Your task to perform on an android device: Clear the shopping cart on newegg. Search for "macbook pro" on newegg, select the first entry, and add it to the cart. Image 0: 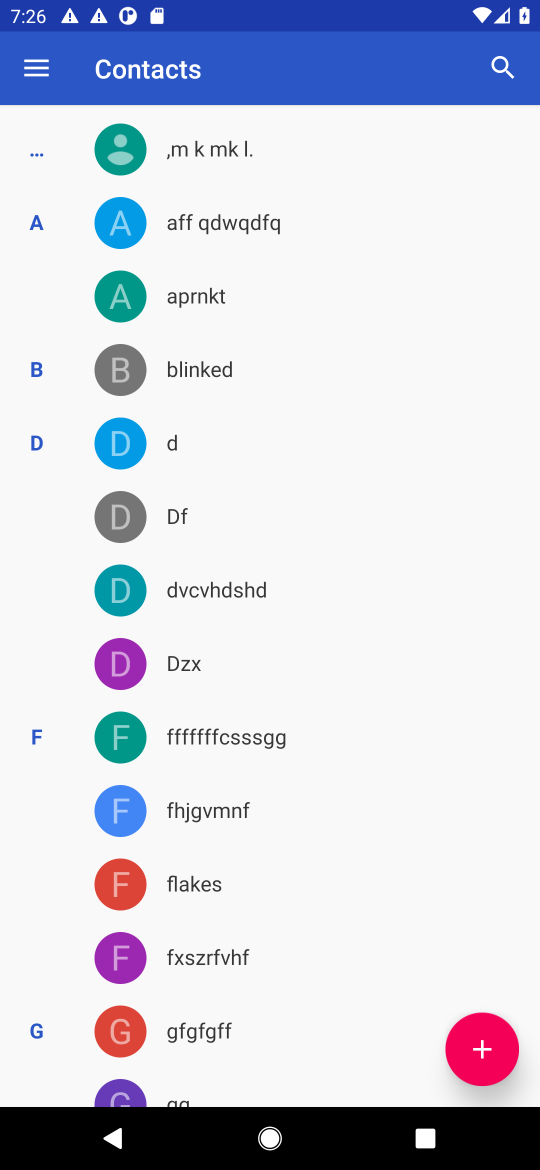
Step 0: press home button
Your task to perform on an android device: Clear the shopping cart on newegg. Search for "macbook pro" on newegg, select the first entry, and add it to the cart. Image 1: 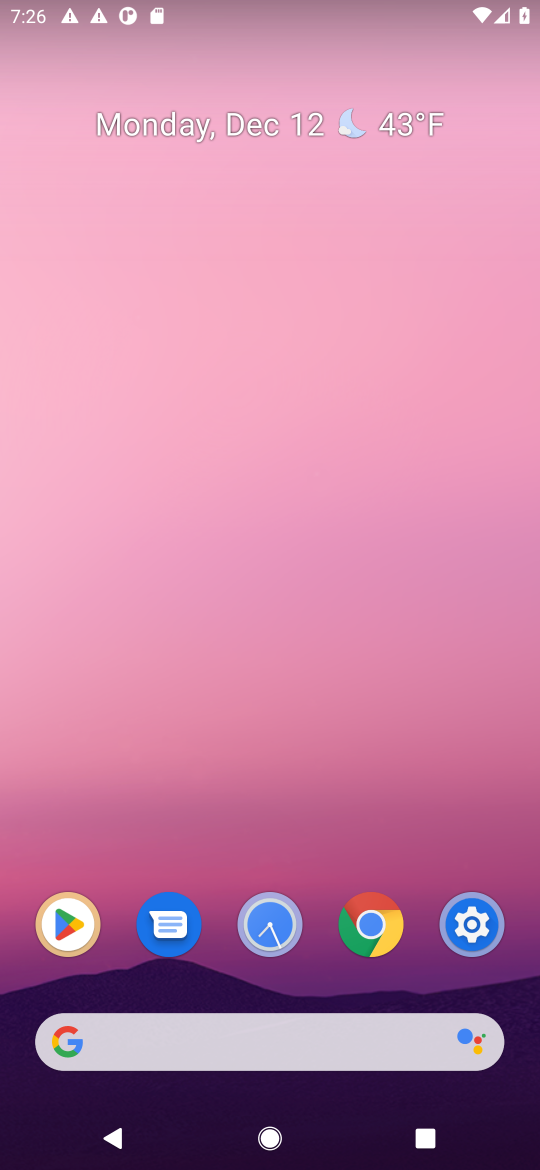
Step 1: click (262, 1045)
Your task to perform on an android device: Clear the shopping cart on newegg. Search for "macbook pro" on newegg, select the first entry, and add it to the cart. Image 2: 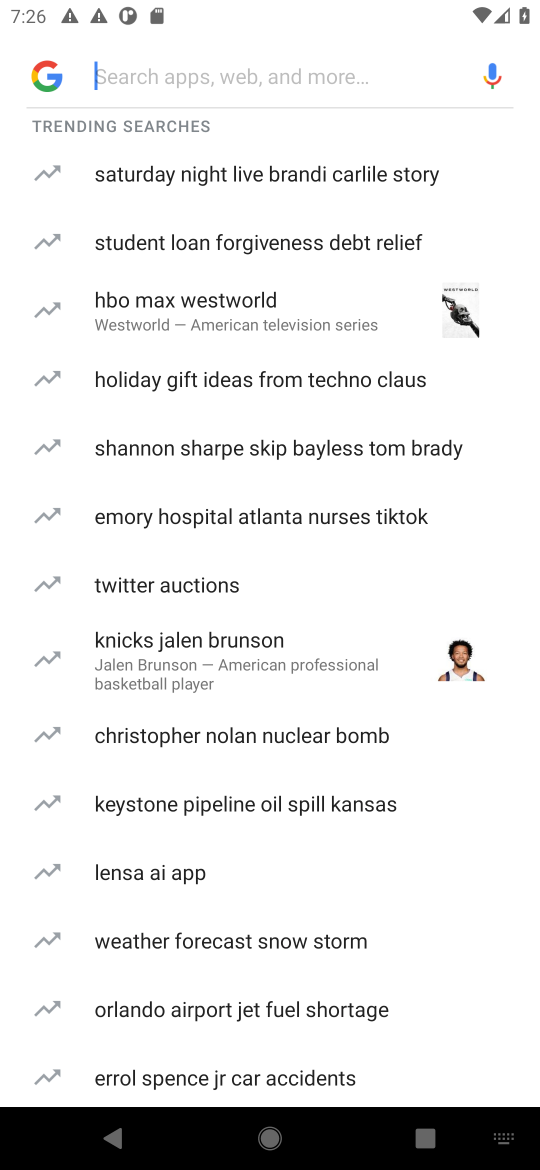
Step 2: type "newegg"
Your task to perform on an android device: Clear the shopping cart on newegg. Search for "macbook pro" on newegg, select the first entry, and add it to the cart. Image 3: 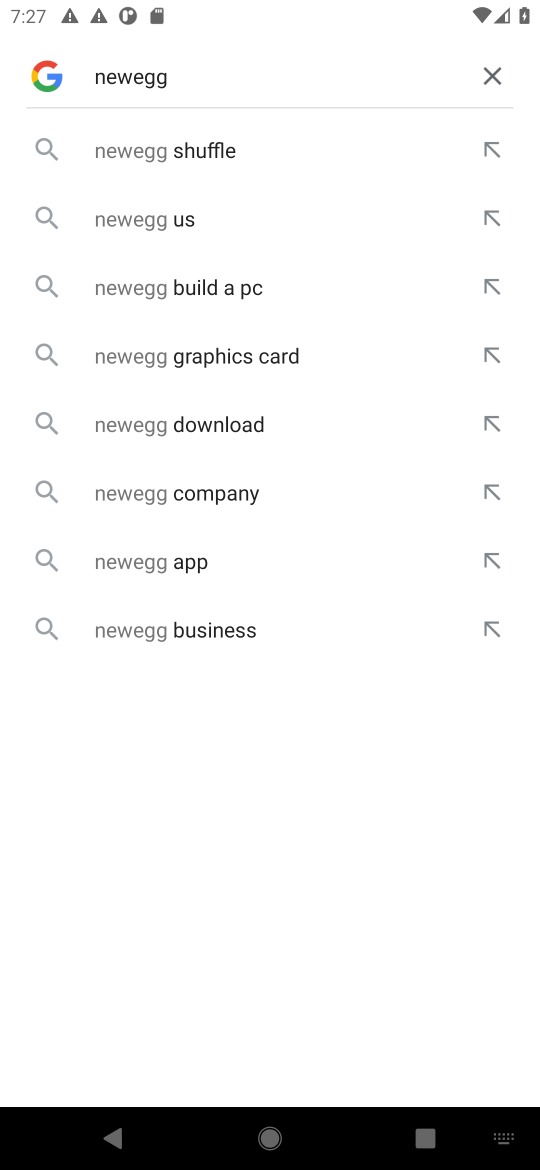
Step 3: click (150, 224)
Your task to perform on an android device: Clear the shopping cart on newegg. Search for "macbook pro" on newegg, select the first entry, and add it to the cart. Image 4: 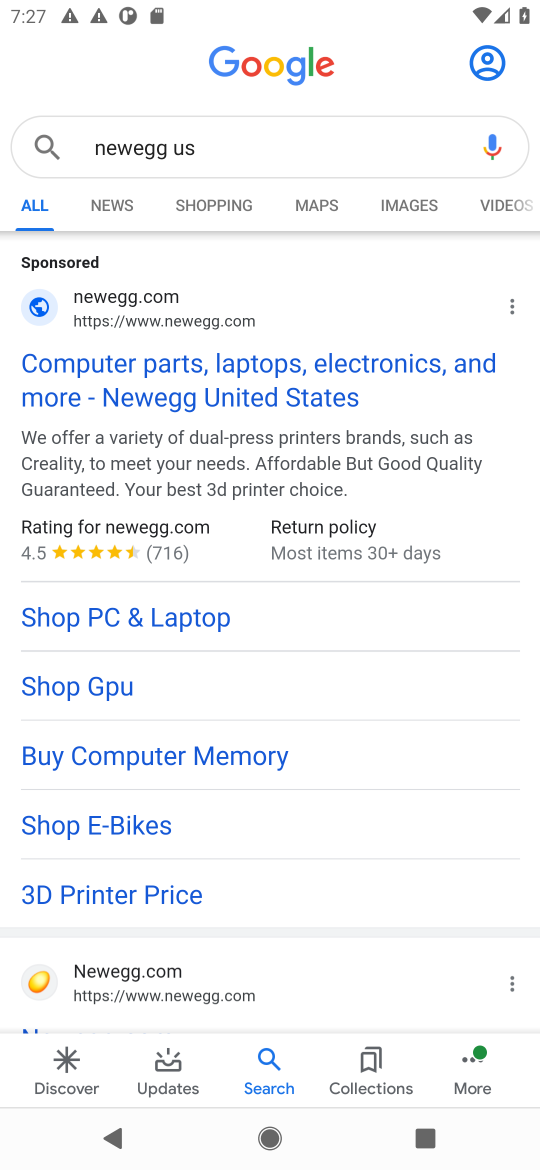
Step 4: click (124, 374)
Your task to perform on an android device: Clear the shopping cart on newegg. Search for "macbook pro" on newegg, select the first entry, and add it to the cart. Image 5: 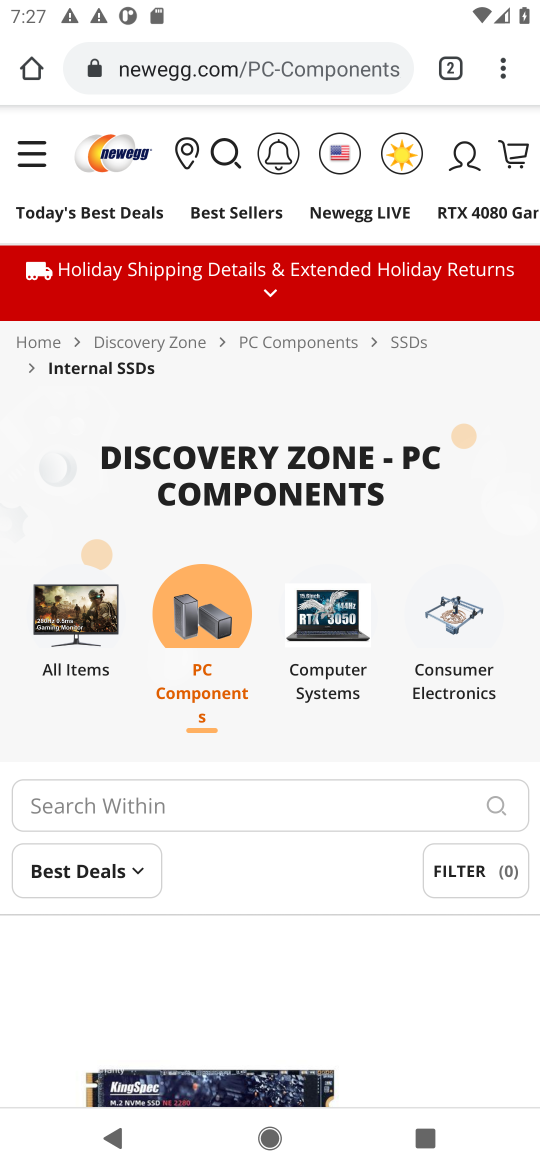
Step 5: click (226, 161)
Your task to perform on an android device: Clear the shopping cart on newegg. Search for "macbook pro" on newegg, select the first entry, and add it to the cart. Image 6: 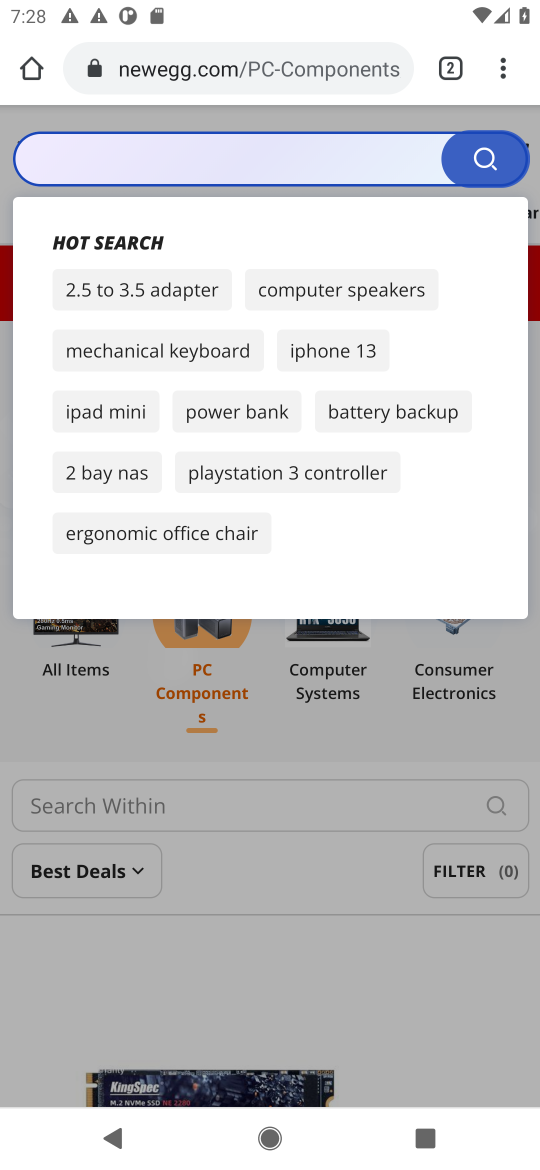
Step 6: click (277, 172)
Your task to perform on an android device: Clear the shopping cart on newegg. Search for "macbook pro" on newegg, select the first entry, and add it to the cart. Image 7: 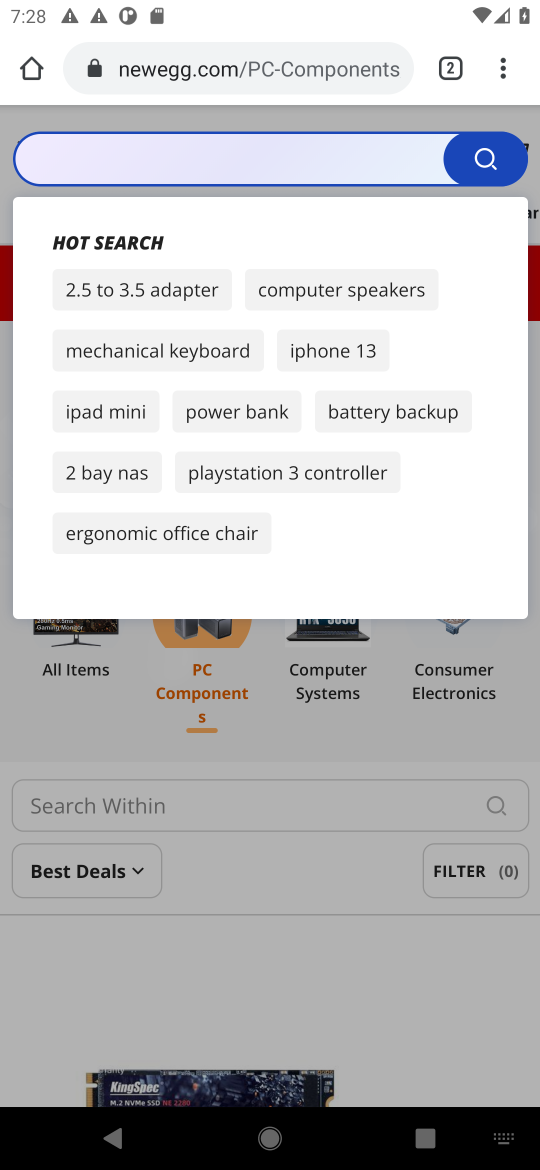
Step 7: type "macbook pro"
Your task to perform on an android device: Clear the shopping cart on newegg. Search for "macbook pro" on newegg, select the first entry, and add it to the cart. Image 8: 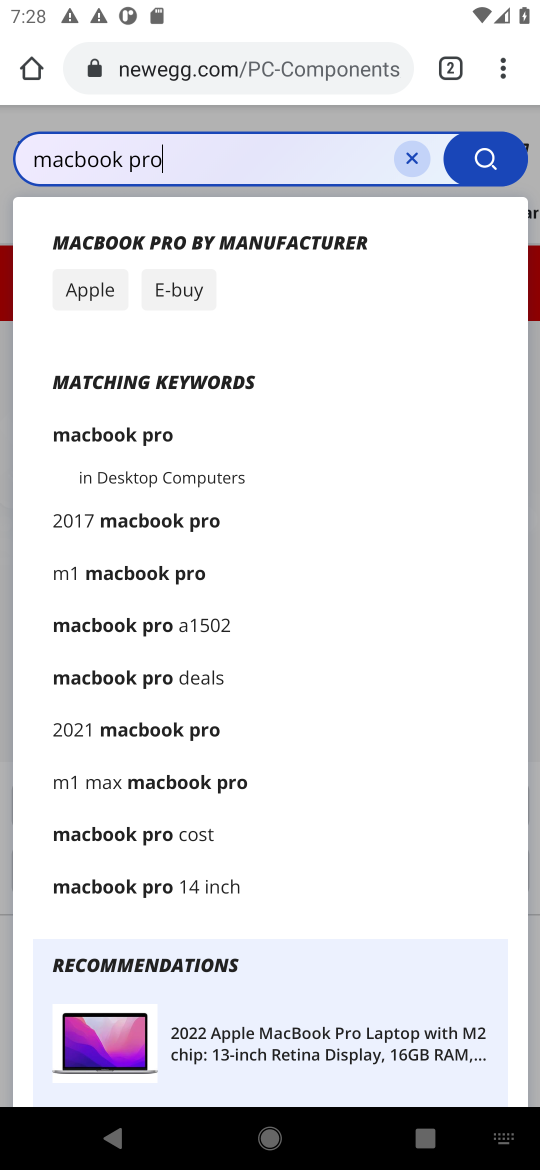
Step 8: click (83, 439)
Your task to perform on an android device: Clear the shopping cart on newegg. Search for "macbook pro" on newegg, select the first entry, and add it to the cart. Image 9: 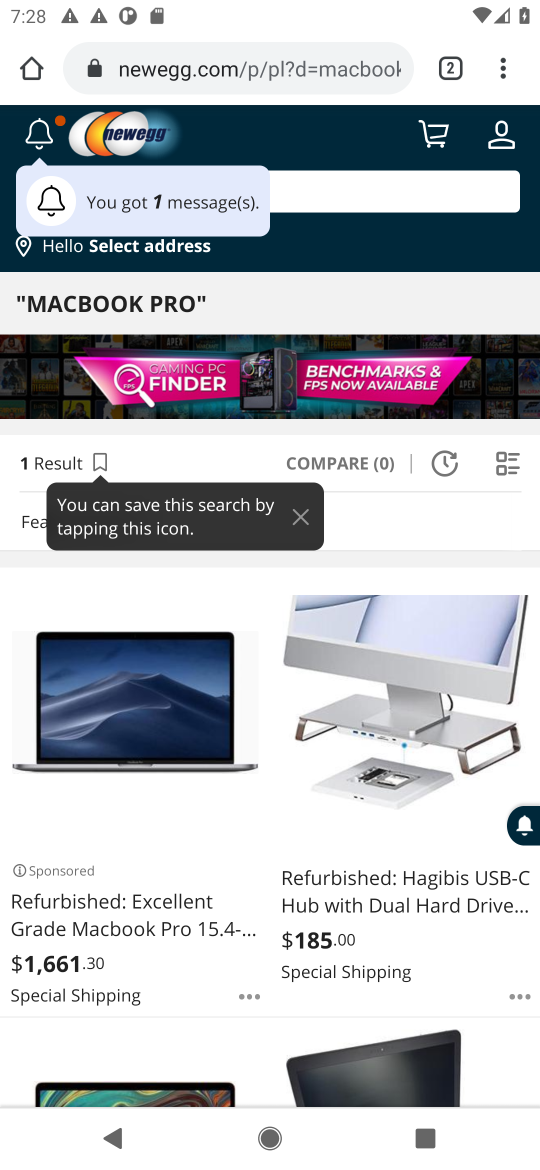
Step 9: click (99, 767)
Your task to perform on an android device: Clear the shopping cart on newegg. Search for "macbook pro" on newegg, select the first entry, and add it to the cart. Image 10: 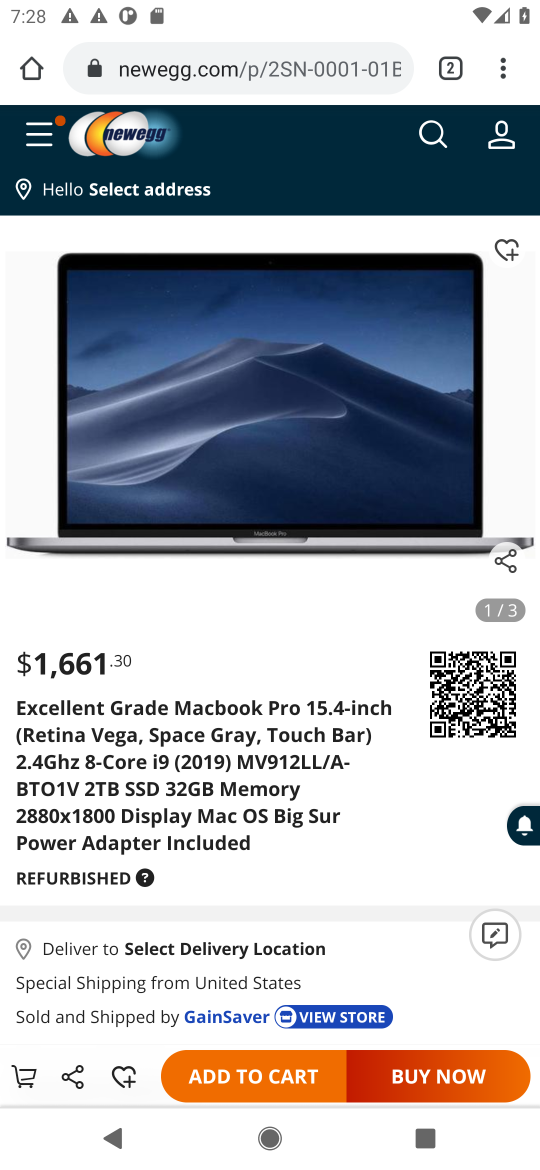
Step 10: click (246, 1074)
Your task to perform on an android device: Clear the shopping cart on newegg. Search for "macbook pro" on newegg, select the first entry, and add it to the cart. Image 11: 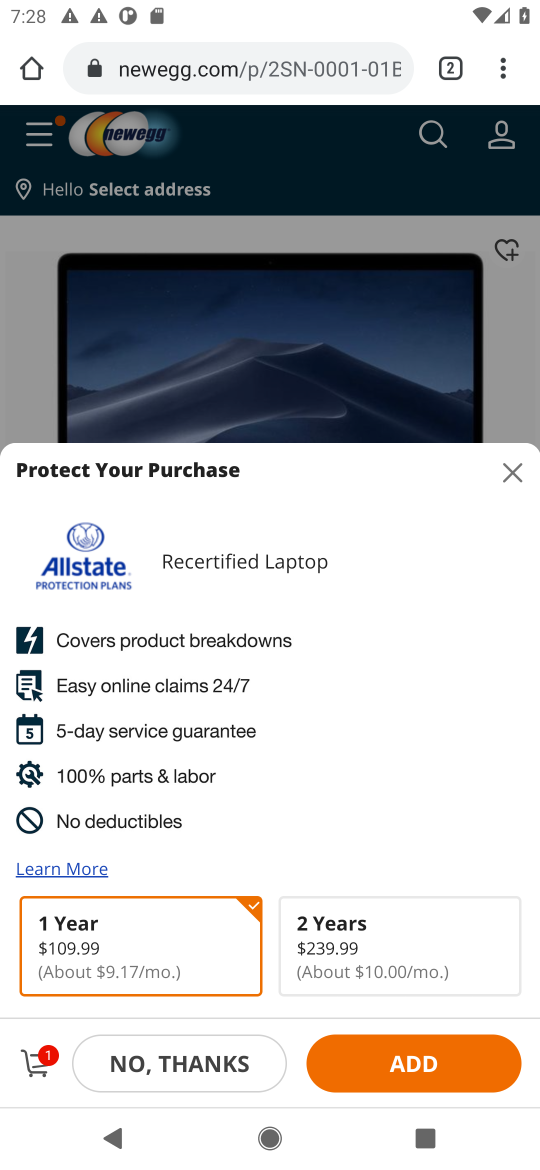
Step 11: click (236, 1063)
Your task to perform on an android device: Clear the shopping cart on newegg. Search for "macbook pro" on newegg, select the first entry, and add it to the cart. Image 12: 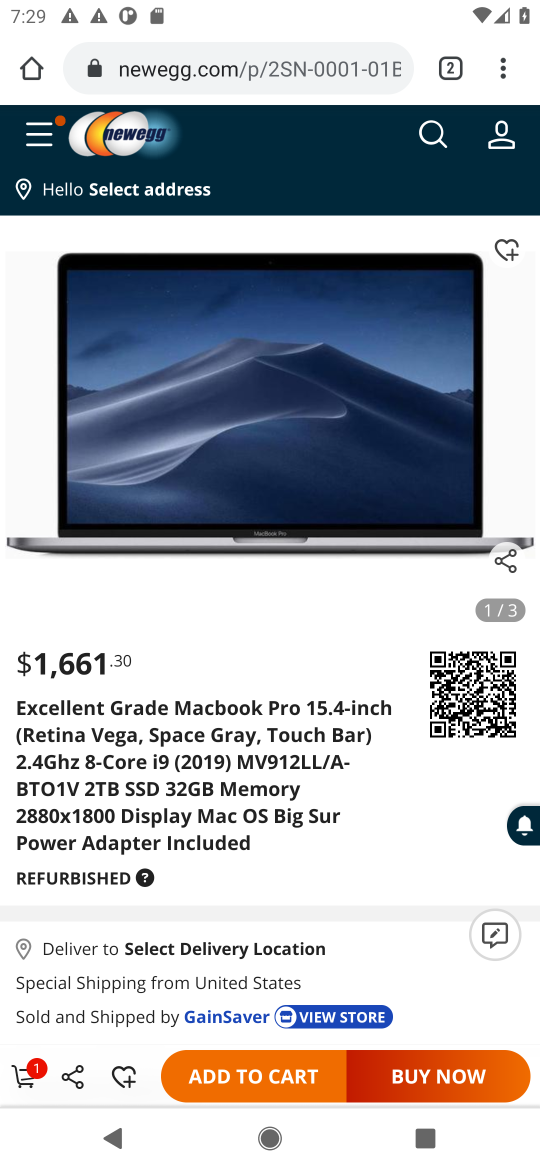
Step 12: click (24, 1085)
Your task to perform on an android device: Clear the shopping cart on newegg. Search for "macbook pro" on newegg, select the first entry, and add it to the cart. Image 13: 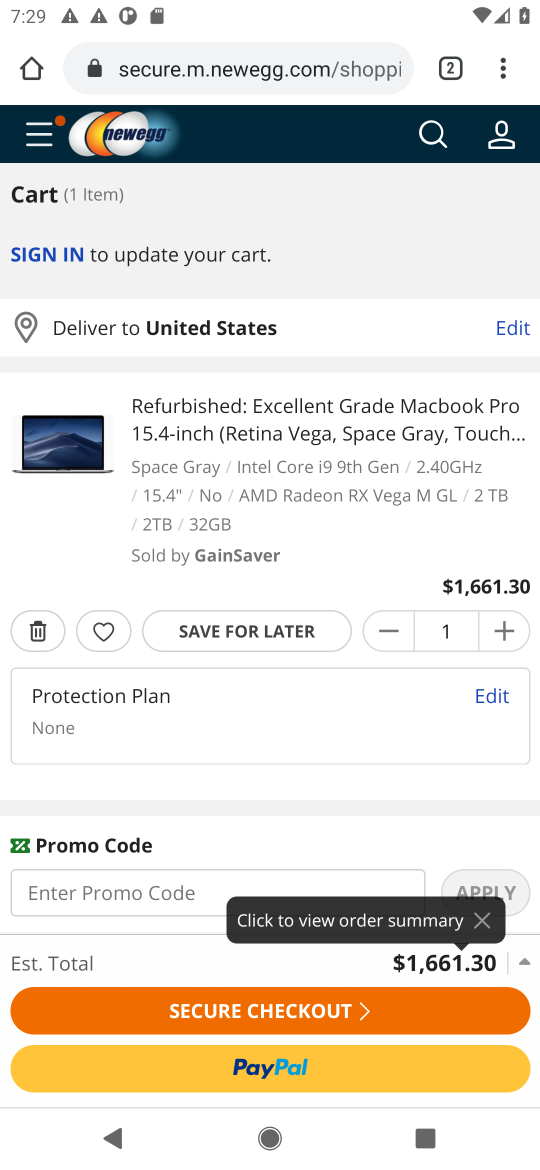
Step 13: click (255, 1003)
Your task to perform on an android device: Clear the shopping cart on newegg. Search for "macbook pro" on newegg, select the first entry, and add it to the cart. Image 14: 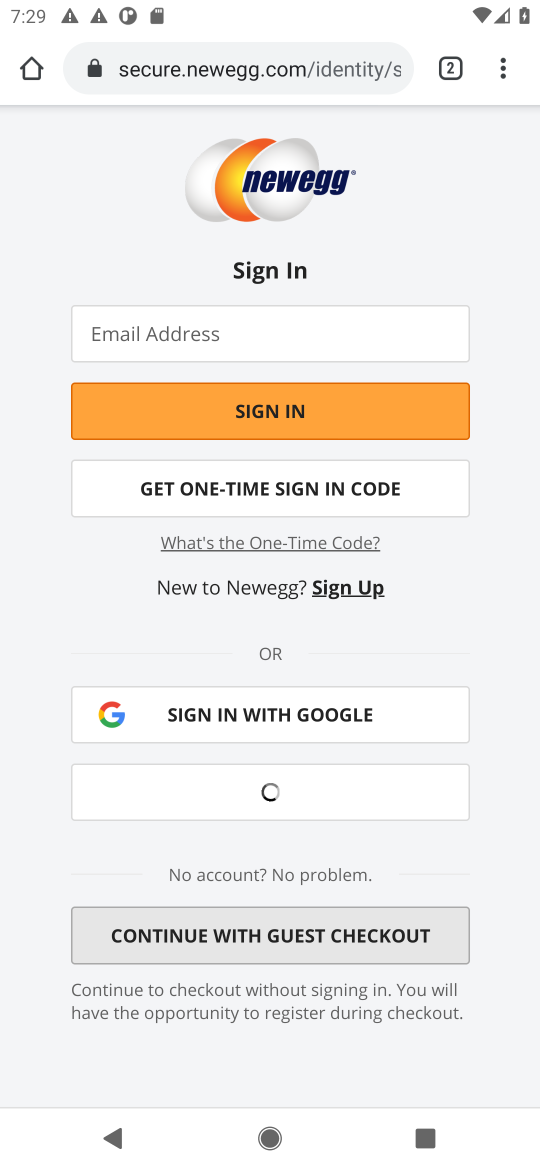
Step 14: task complete